Your task to perform on an android device: allow notifications from all sites in the chrome app Image 0: 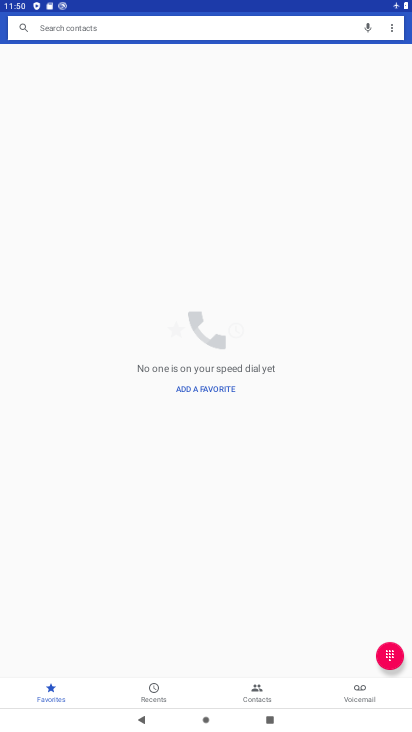
Step 0: press home button
Your task to perform on an android device: allow notifications from all sites in the chrome app Image 1: 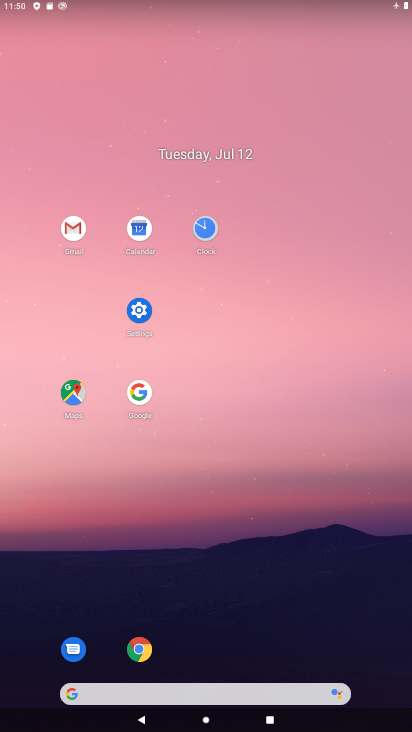
Step 1: click (134, 655)
Your task to perform on an android device: allow notifications from all sites in the chrome app Image 2: 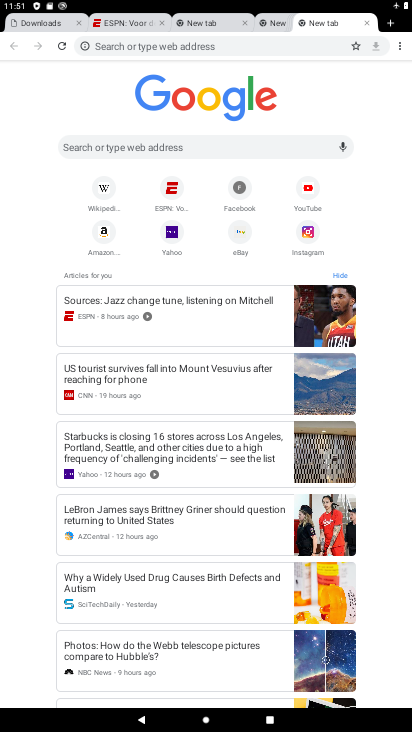
Step 2: click (397, 45)
Your task to perform on an android device: allow notifications from all sites in the chrome app Image 3: 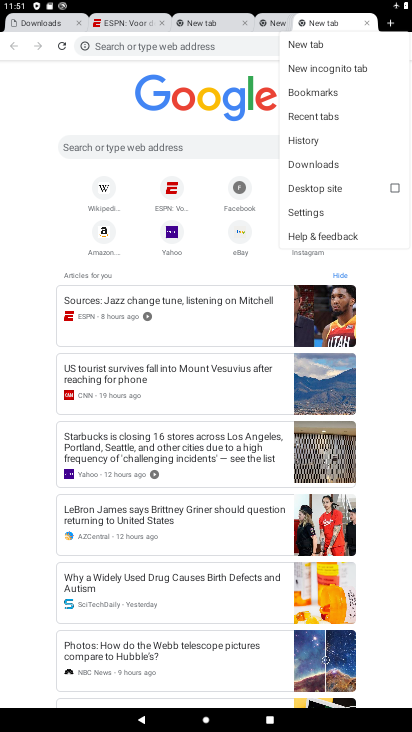
Step 3: click (326, 209)
Your task to perform on an android device: allow notifications from all sites in the chrome app Image 4: 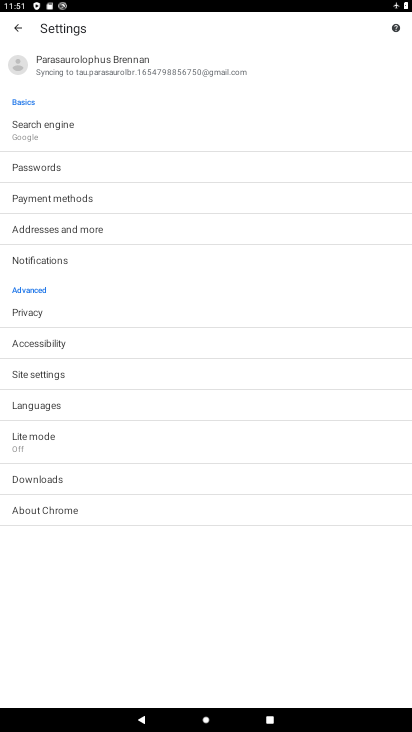
Step 4: click (68, 249)
Your task to perform on an android device: allow notifications from all sites in the chrome app Image 5: 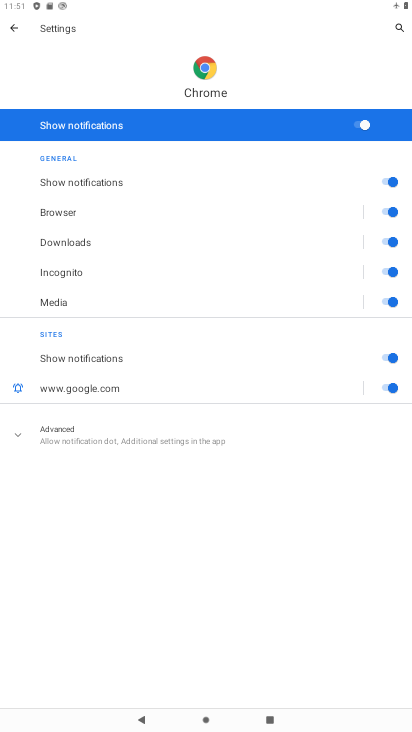
Step 5: task complete